Your task to perform on an android device: Go to Android settings Image 0: 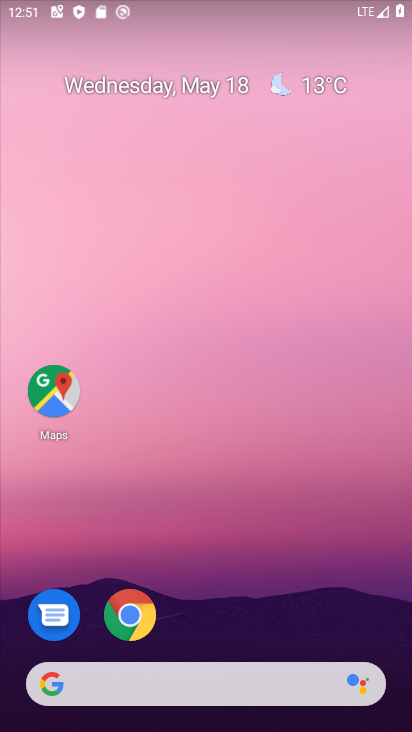
Step 0: press home button
Your task to perform on an android device: Go to Android settings Image 1: 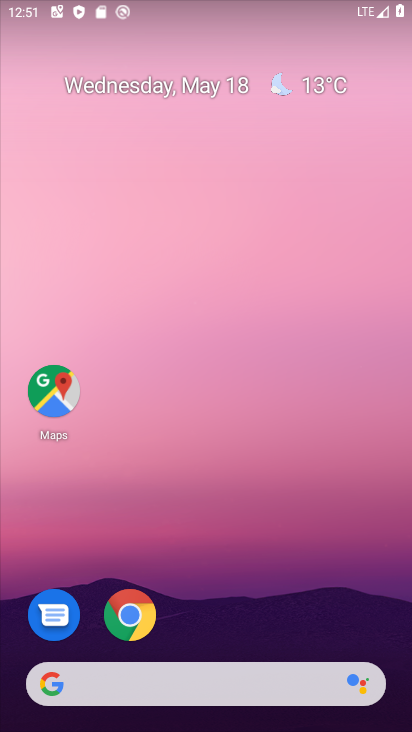
Step 1: drag from (194, 684) to (282, 251)
Your task to perform on an android device: Go to Android settings Image 2: 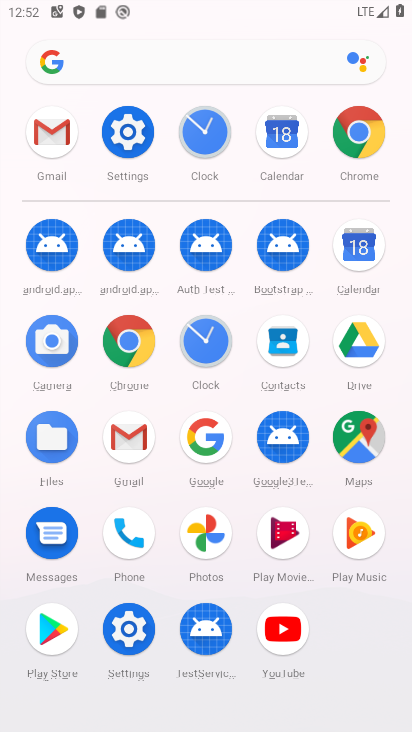
Step 2: click (131, 143)
Your task to perform on an android device: Go to Android settings Image 3: 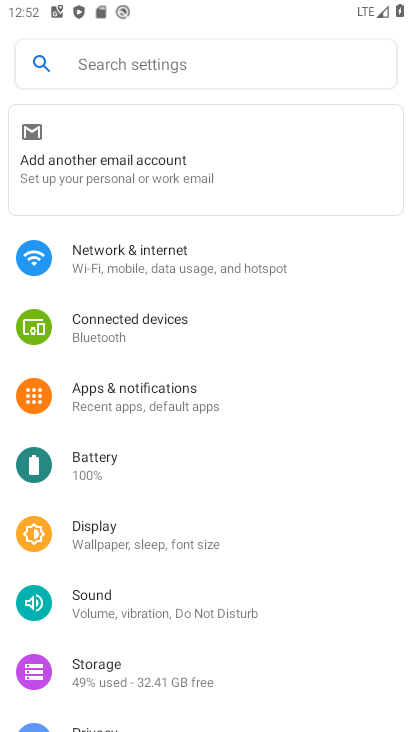
Step 3: task complete